Your task to perform on an android device: check out phone information Image 0: 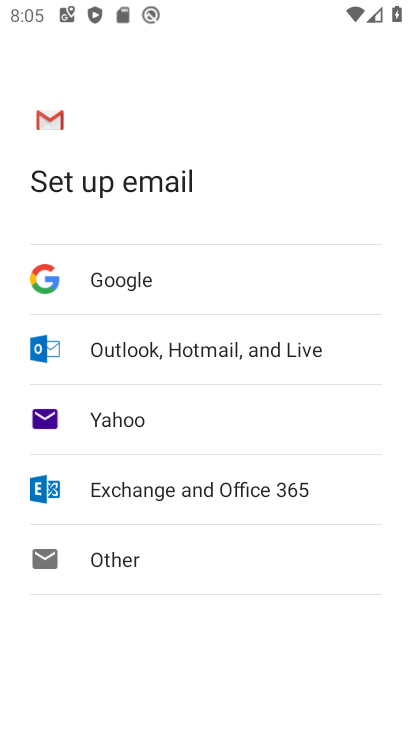
Step 0: press home button
Your task to perform on an android device: check out phone information Image 1: 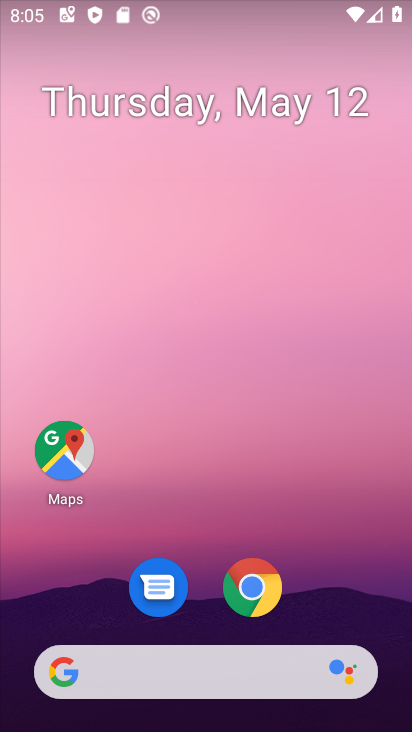
Step 1: drag from (264, 581) to (343, 220)
Your task to perform on an android device: check out phone information Image 2: 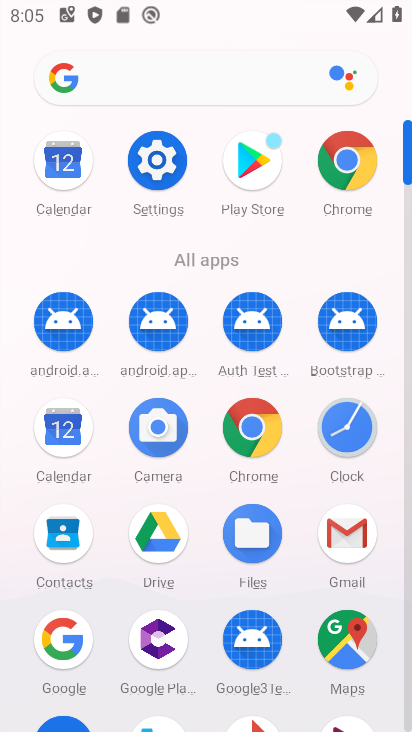
Step 2: click (156, 165)
Your task to perform on an android device: check out phone information Image 3: 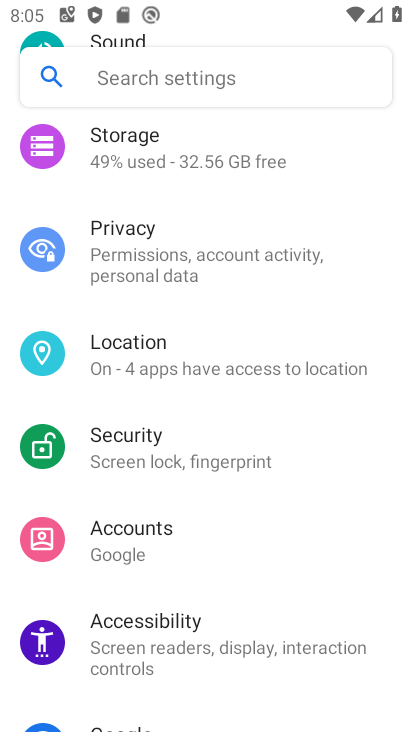
Step 3: drag from (248, 660) to (259, 83)
Your task to perform on an android device: check out phone information Image 4: 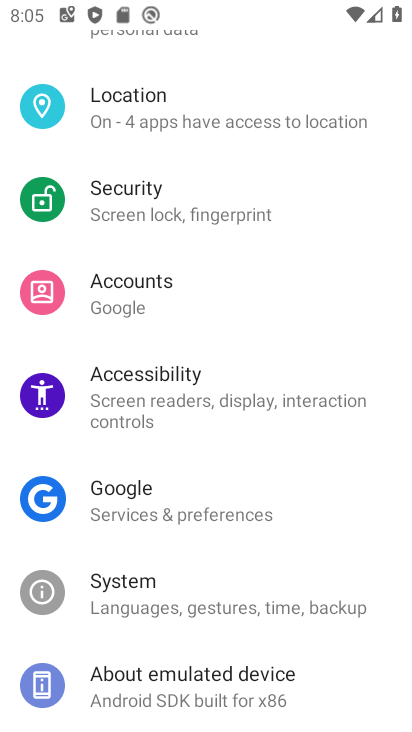
Step 4: click (182, 681)
Your task to perform on an android device: check out phone information Image 5: 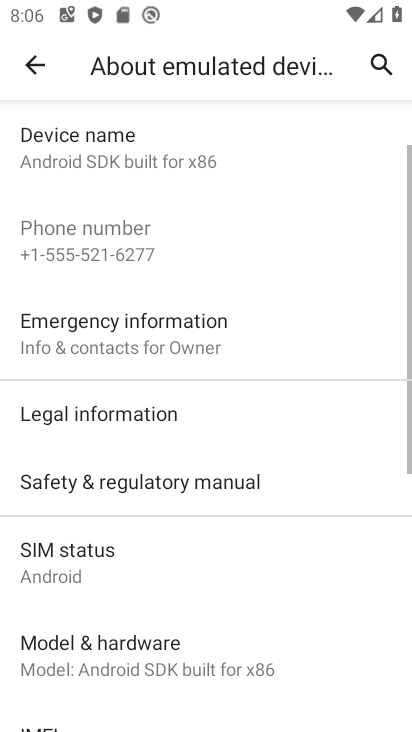
Step 5: task complete